Your task to perform on an android device: change the clock style Image 0: 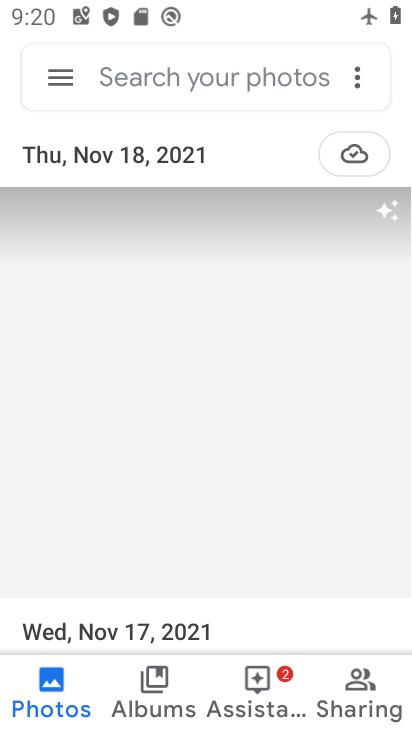
Step 0: press home button
Your task to perform on an android device: change the clock style Image 1: 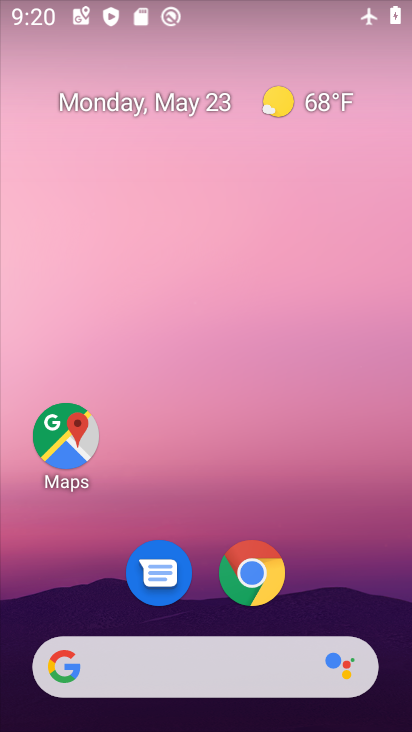
Step 1: drag from (340, 619) to (322, 137)
Your task to perform on an android device: change the clock style Image 2: 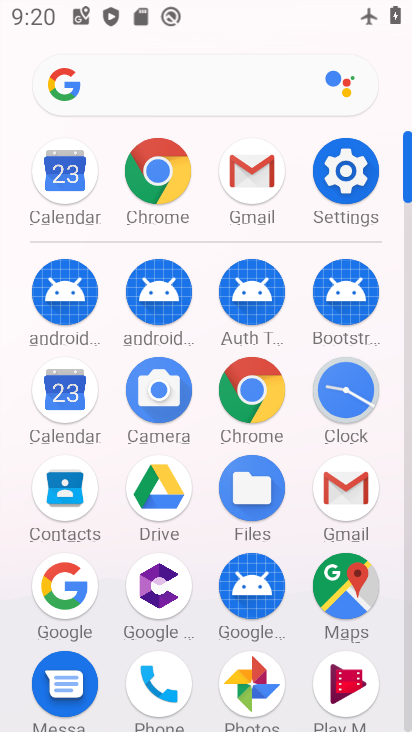
Step 2: click (347, 382)
Your task to perform on an android device: change the clock style Image 3: 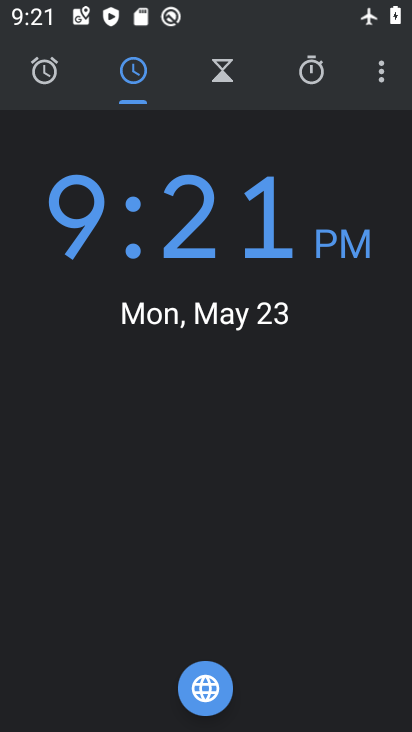
Step 3: click (383, 76)
Your task to perform on an android device: change the clock style Image 4: 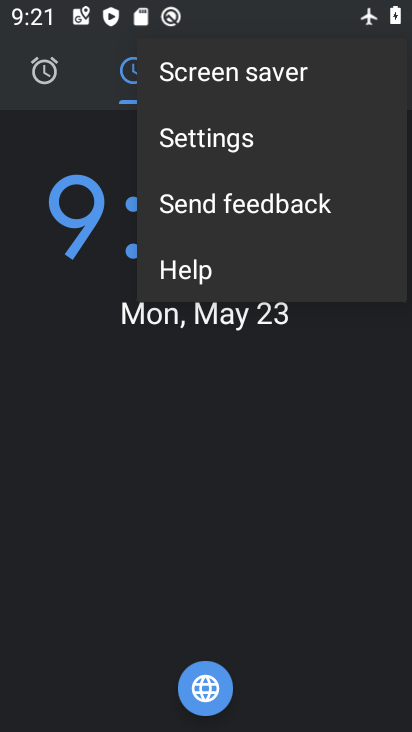
Step 4: click (224, 141)
Your task to perform on an android device: change the clock style Image 5: 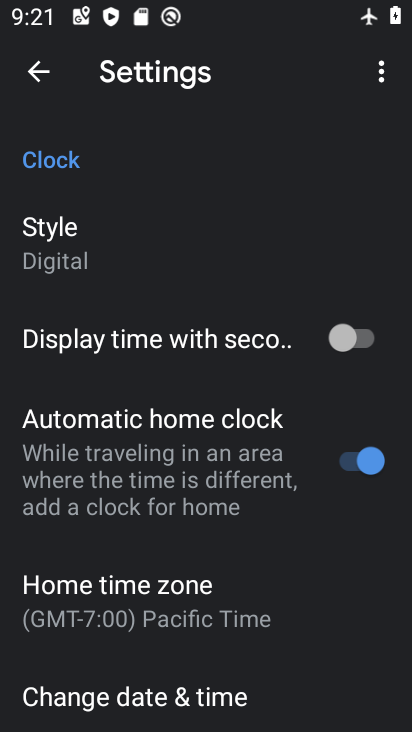
Step 5: click (161, 252)
Your task to perform on an android device: change the clock style Image 6: 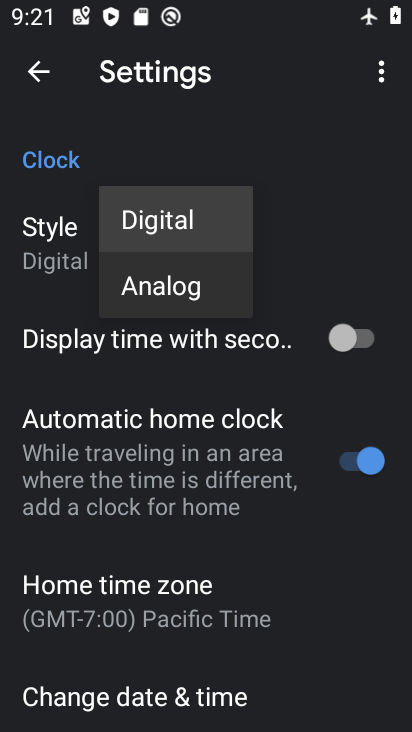
Step 6: click (168, 282)
Your task to perform on an android device: change the clock style Image 7: 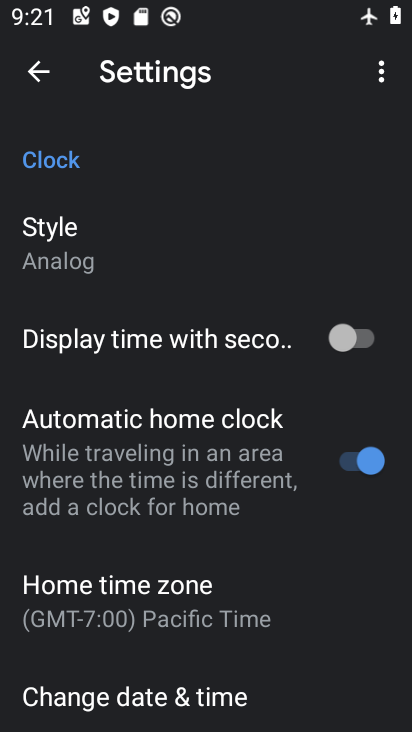
Step 7: task complete